Your task to perform on an android device: Show me recent news Image 0: 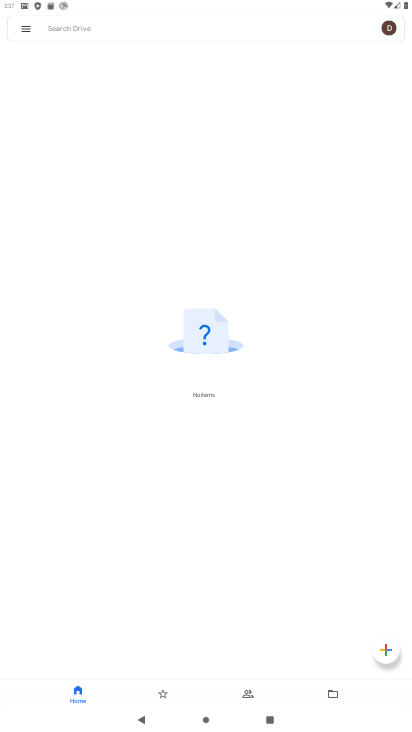
Step 0: press home button
Your task to perform on an android device: Show me recent news Image 1: 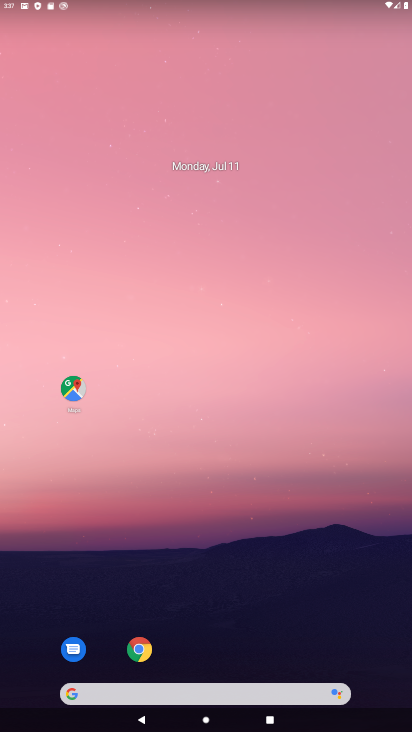
Step 1: drag from (276, 564) to (337, 6)
Your task to perform on an android device: Show me recent news Image 2: 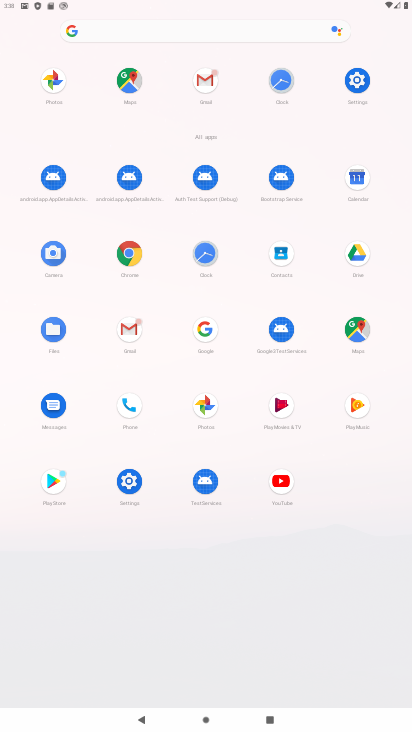
Step 2: click (129, 262)
Your task to perform on an android device: Show me recent news Image 3: 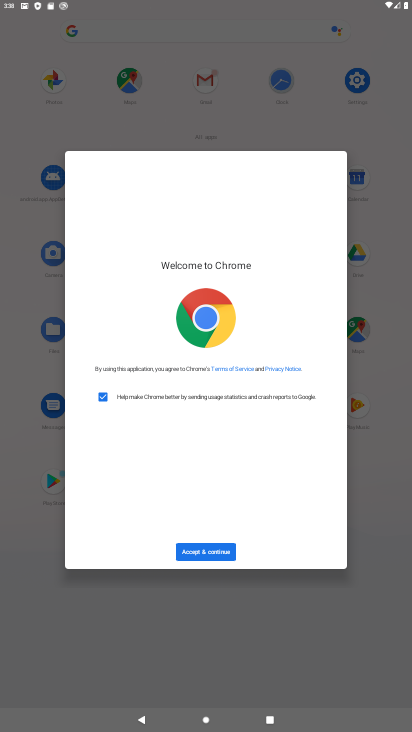
Step 3: click (206, 546)
Your task to perform on an android device: Show me recent news Image 4: 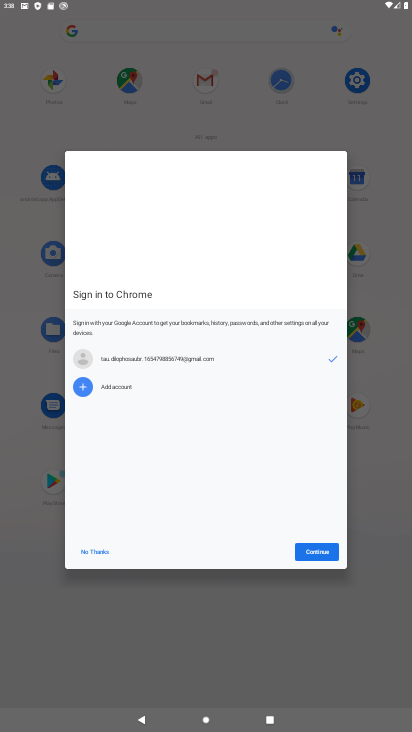
Step 4: click (328, 548)
Your task to perform on an android device: Show me recent news Image 5: 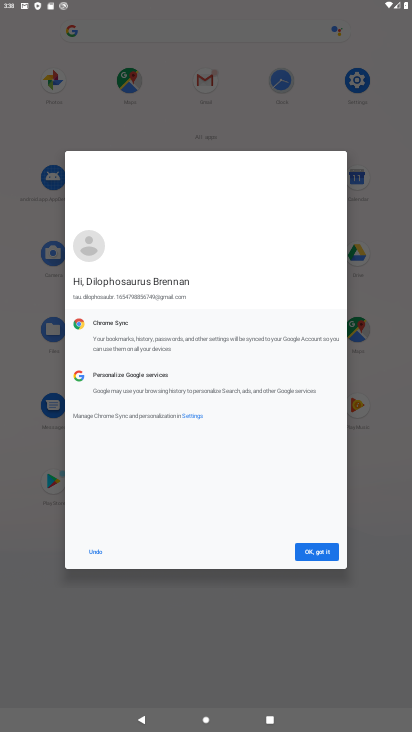
Step 5: click (326, 553)
Your task to perform on an android device: Show me recent news Image 6: 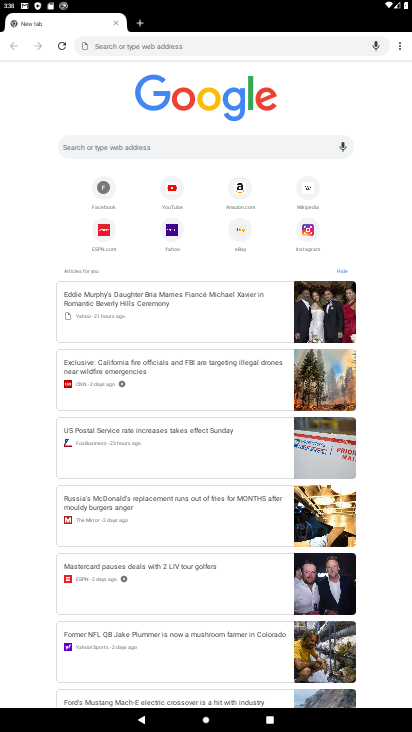
Step 6: click (201, 152)
Your task to perform on an android device: Show me recent news Image 7: 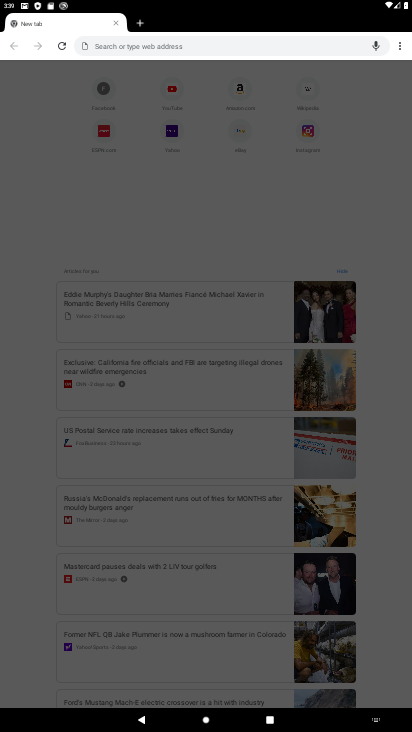
Step 7: type "Show me recent news"
Your task to perform on an android device: Show me recent news Image 8: 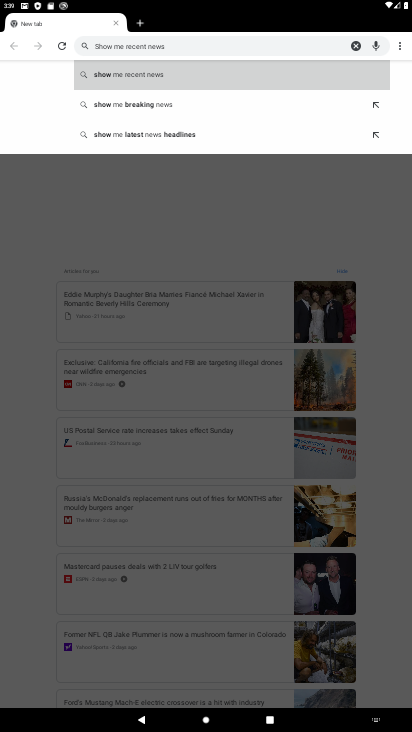
Step 8: click (151, 72)
Your task to perform on an android device: Show me recent news Image 9: 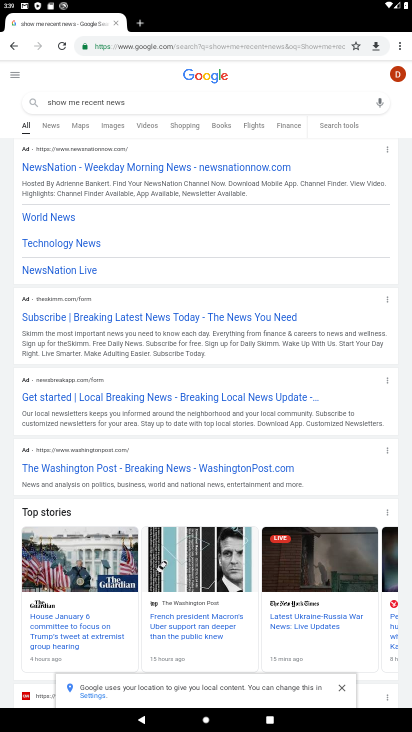
Step 9: click (49, 127)
Your task to perform on an android device: Show me recent news Image 10: 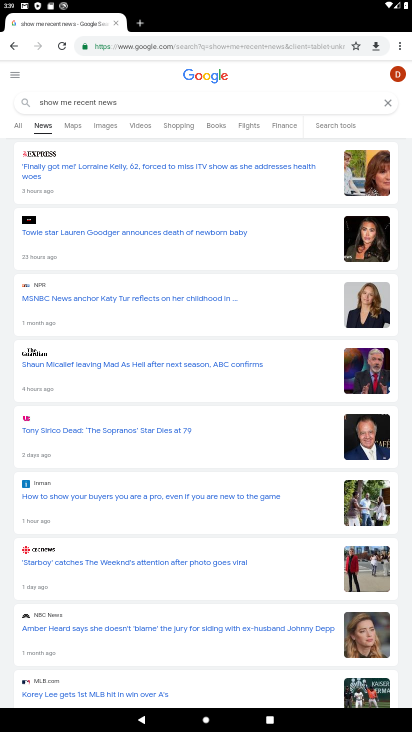
Step 10: task complete